Your task to perform on an android device: turn off notifications in google photos Image 0: 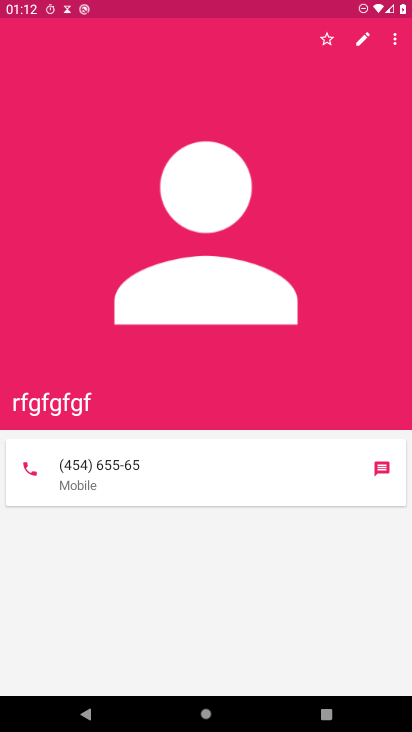
Step 0: press home button
Your task to perform on an android device: turn off notifications in google photos Image 1: 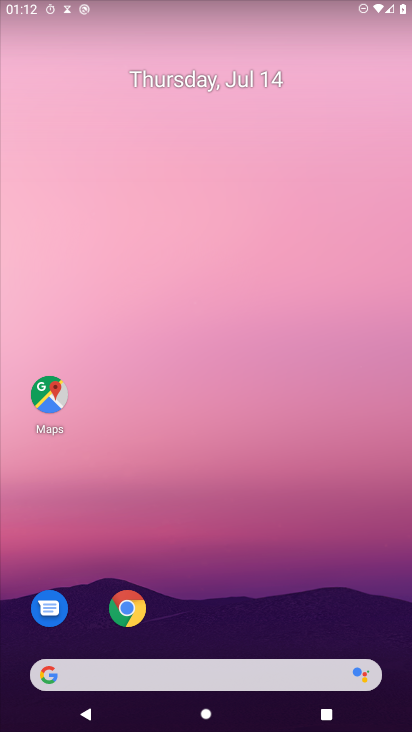
Step 1: drag from (262, 602) to (262, 8)
Your task to perform on an android device: turn off notifications in google photos Image 2: 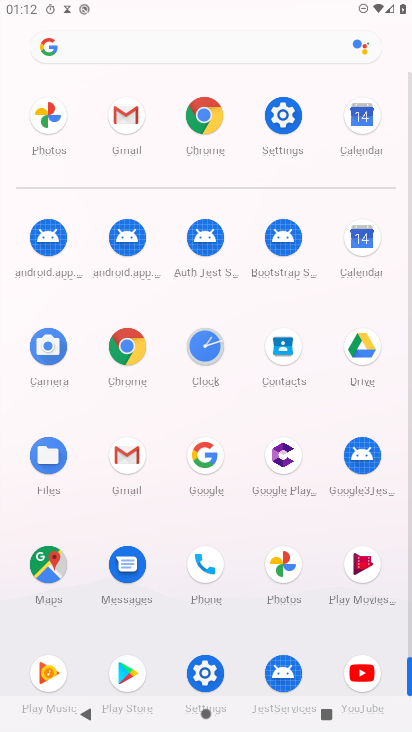
Step 2: click (292, 558)
Your task to perform on an android device: turn off notifications in google photos Image 3: 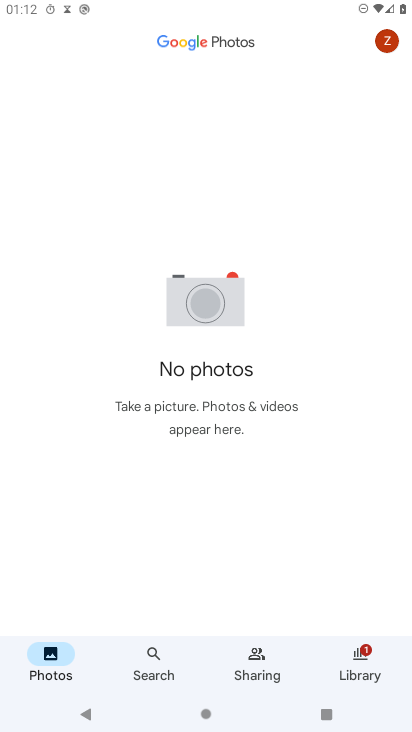
Step 3: click (387, 30)
Your task to perform on an android device: turn off notifications in google photos Image 4: 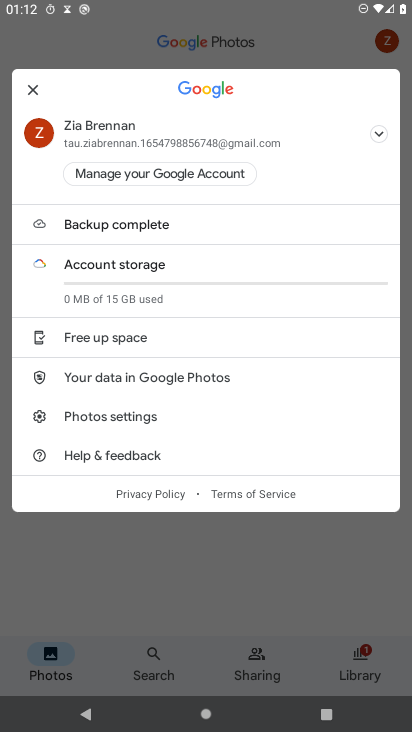
Step 4: click (92, 425)
Your task to perform on an android device: turn off notifications in google photos Image 5: 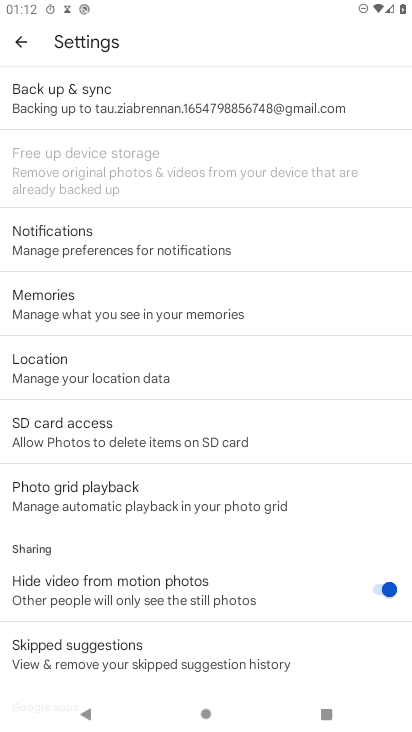
Step 5: click (106, 239)
Your task to perform on an android device: turn off notifications in google photos Image 6: 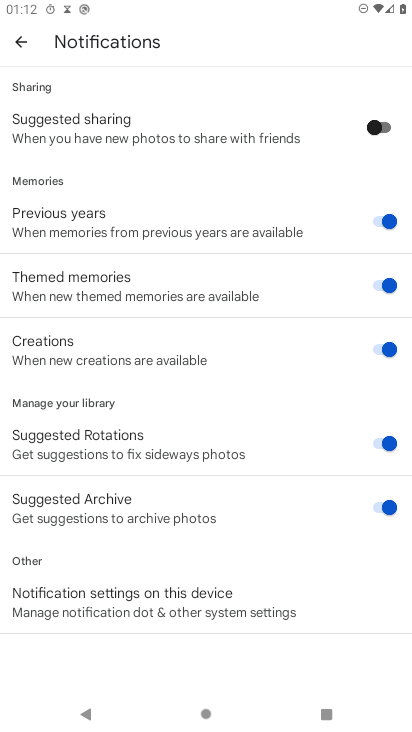
Step 6: click (195, 606)
Your task to perform on an android device: turn off notifications in google photos Image 7: 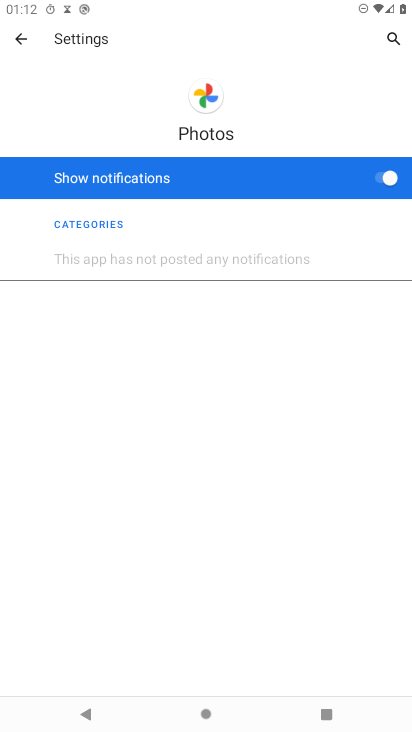
Step 7: click (389, 180)
Your task to perform on an android device: turn off notifications in google photos Image 8: 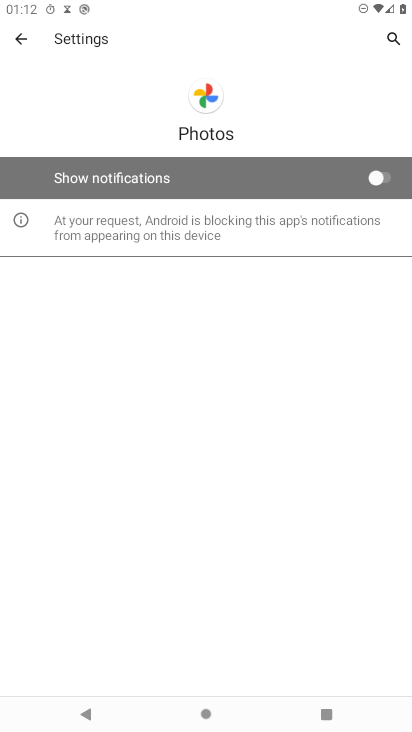
Step 8: task complete